Your task to perform on an android device: change notification settings in the gmail app Image 0: 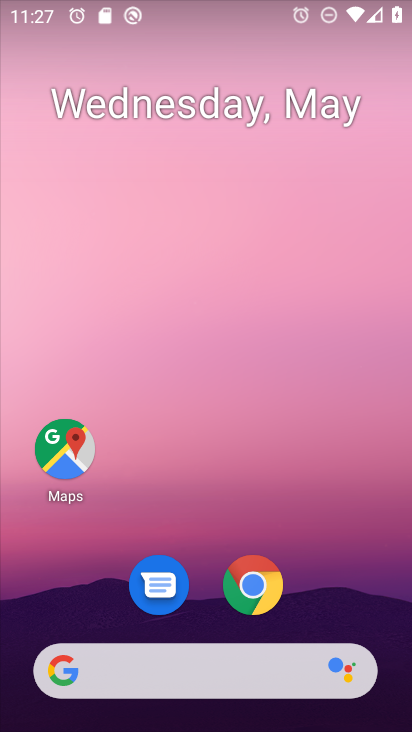
Step 0: drag from (323, 502) to (315, 53)
Your task to perform on an android device: change notification settings in the gmail app Image 1: 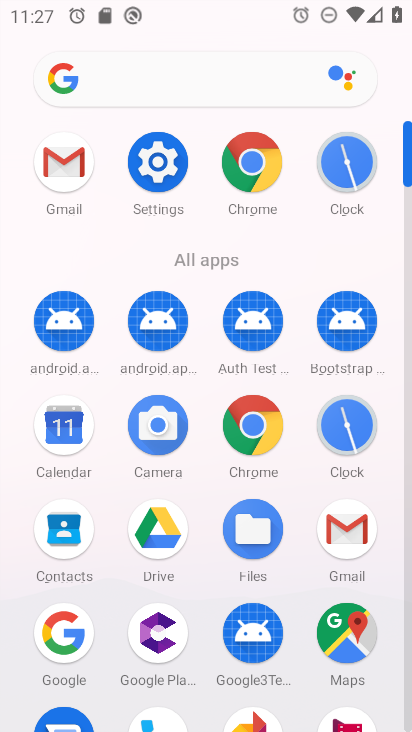
Step 1: click (57, 151)
Your task to perform on an android device: change notification settings in the gmail app Image 2: 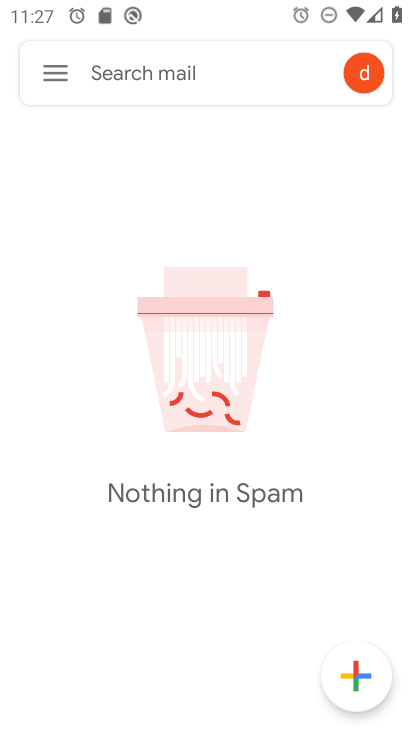
Step 2: click (62, 73)
Your task to perform on an android device: change notification settings in the gmail app Image 3: 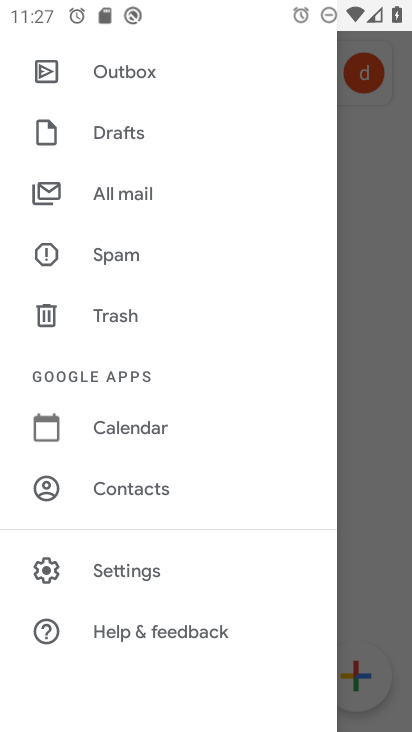
Step 3: click (138, 560)
Your task to perform on an android device: change notification settings in the gmail app Image 4: 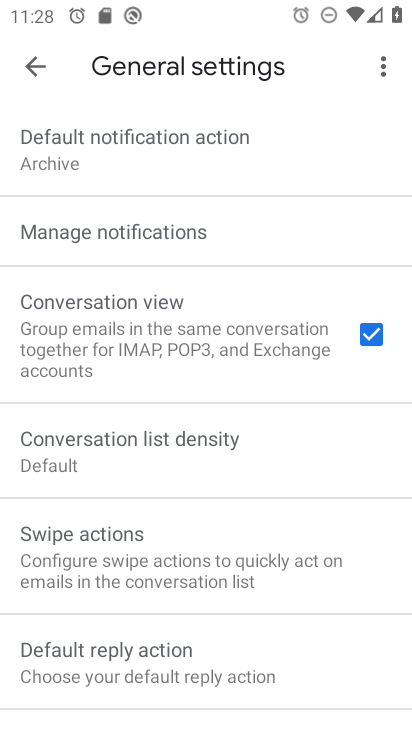
Step 4: click (173, 219)
Your task to perform on an android device: change notification settings in the gmail app Image 5: 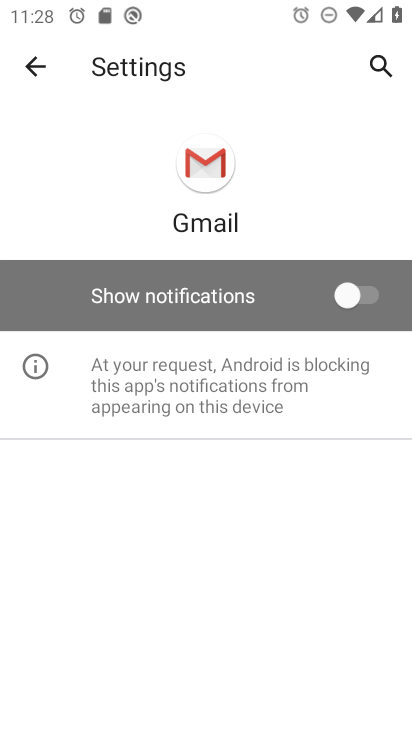
Step 5: click (370, 277)
Your task to perform on an android device: change notification settings in the gmail app Image 6: 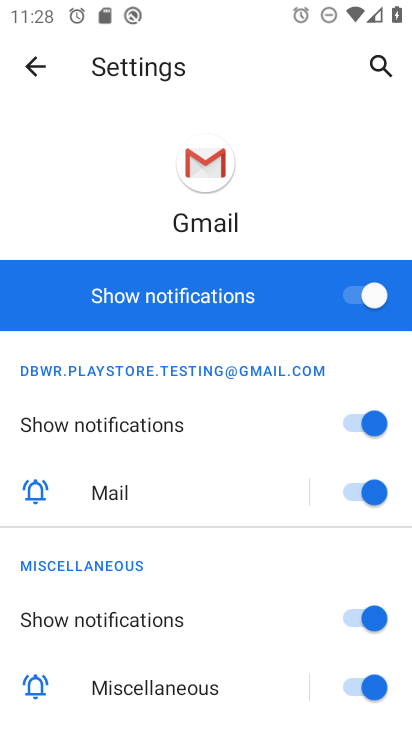
Step 6: task complete